Your task to perform on an android device: Show me the alarms in the clock app Image 0: 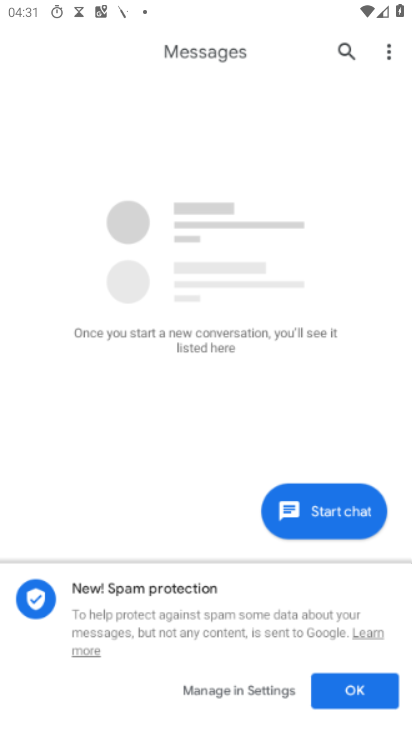
Step 0: drag from (337, 653) to (320, 132)
Your task to perform on an android device: Show me the alarms in the clock app Image 1: 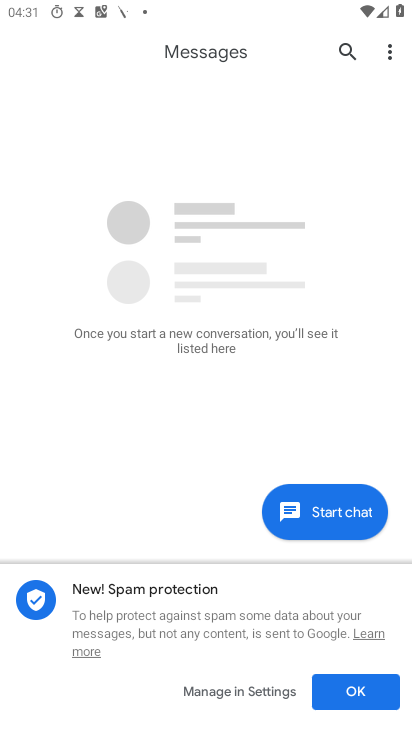
Step 1: press home button
Your task to perform on an android device: Show me the alarms in the clock app Image 2: 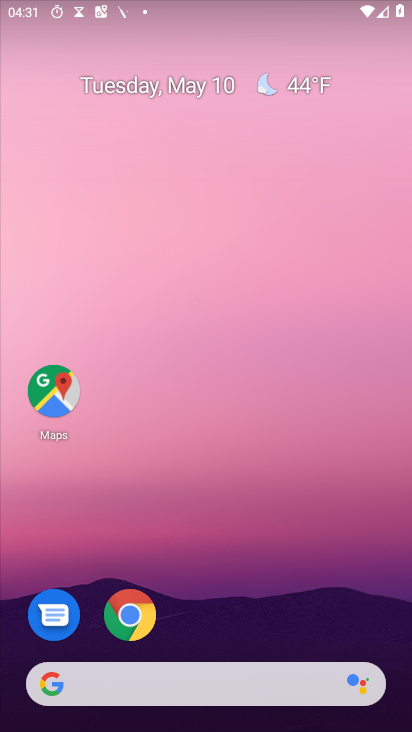
Step 2: drag from (159, 678) to (253, 72)
Your task to perform on an android device: Show me the alarms in the clock app Image 3: 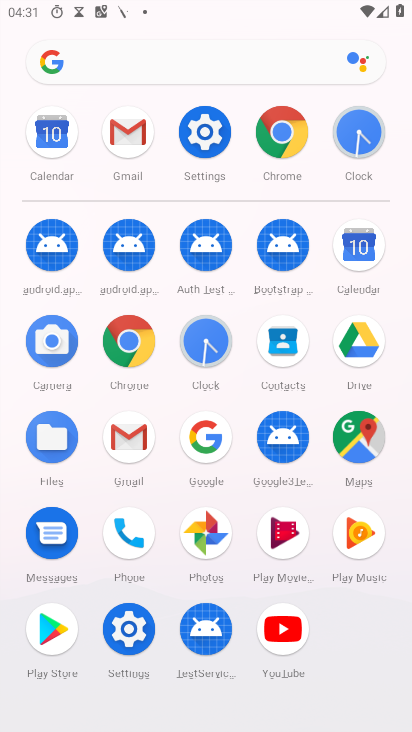
Step 3: click (208, 365)
Your task to perform on an android device: Show me the alarms in the clock app Image 4: 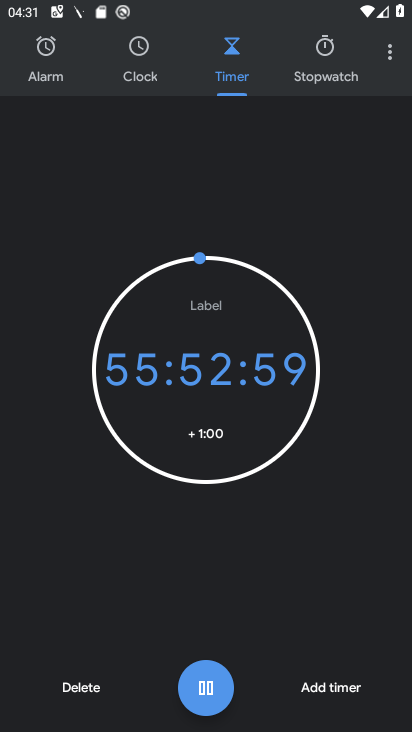
Step 4: click (45, 39)
Your task to perform on an android device: Show me the alarms in the clock app Image 5: 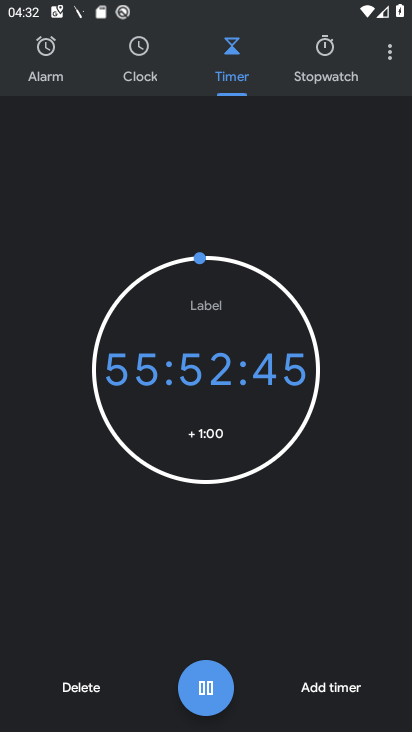
Step 5: click (49, 61)
Your task to perform on an android device: Show me the alarms in the clock app Image 6: 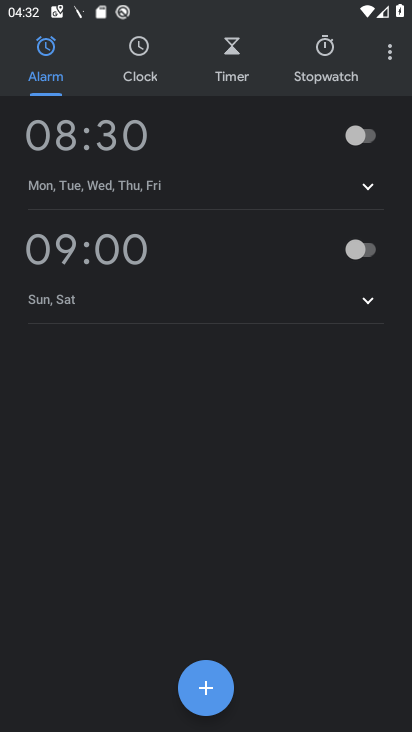
Step 6: task complete